Your task to perform on an android device: Play the latest video from the Wall Street Journal Image 0: 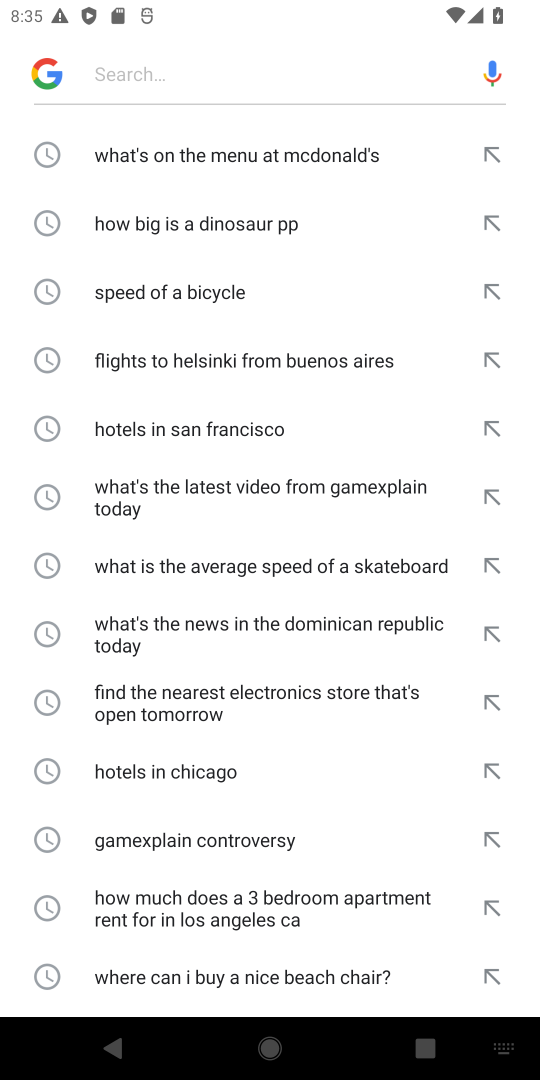
Step 0: press home button
Your task to perform on an android device: Play the latest video from the Wall Street Journal Image 1: 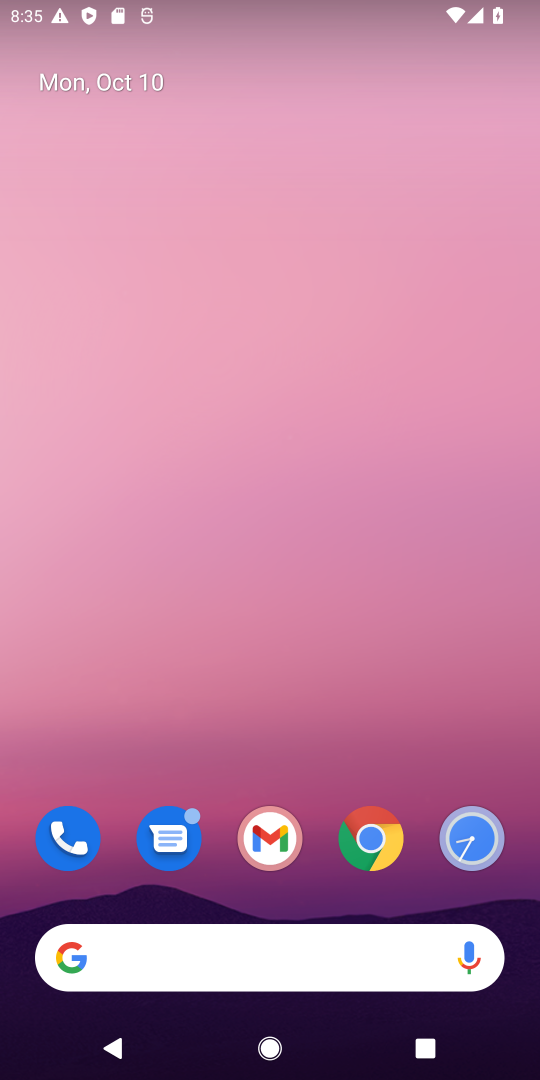
Step 1: drag from (336, 917) to (259, 26)
Your task to perform on an android device: Play the latest video from the Wall Street Journal Image 2: 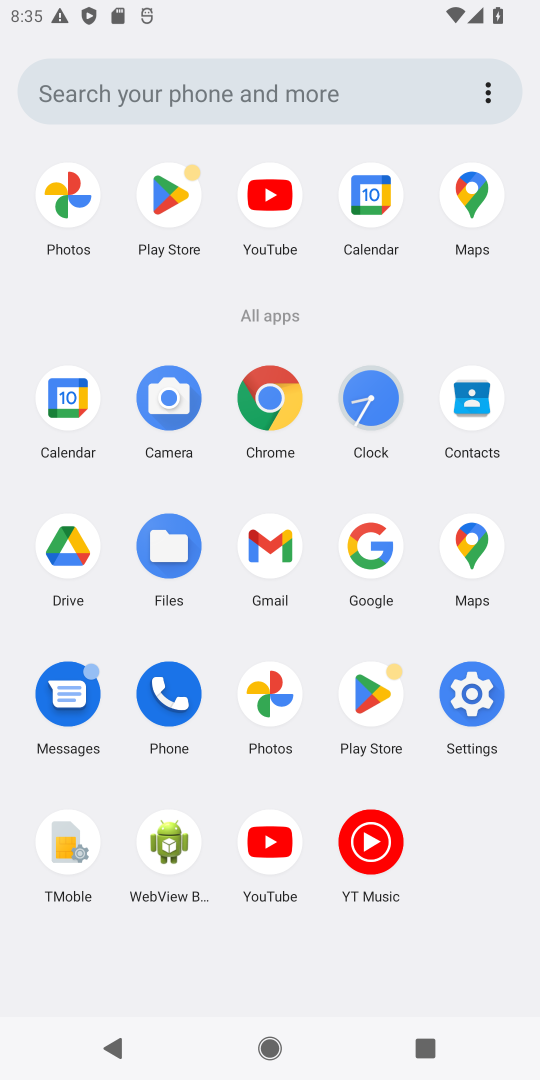
Step 2: click (368, 536)
Your task to perform on an android device: Play the latest video from the Wall Street Journal Image 3: 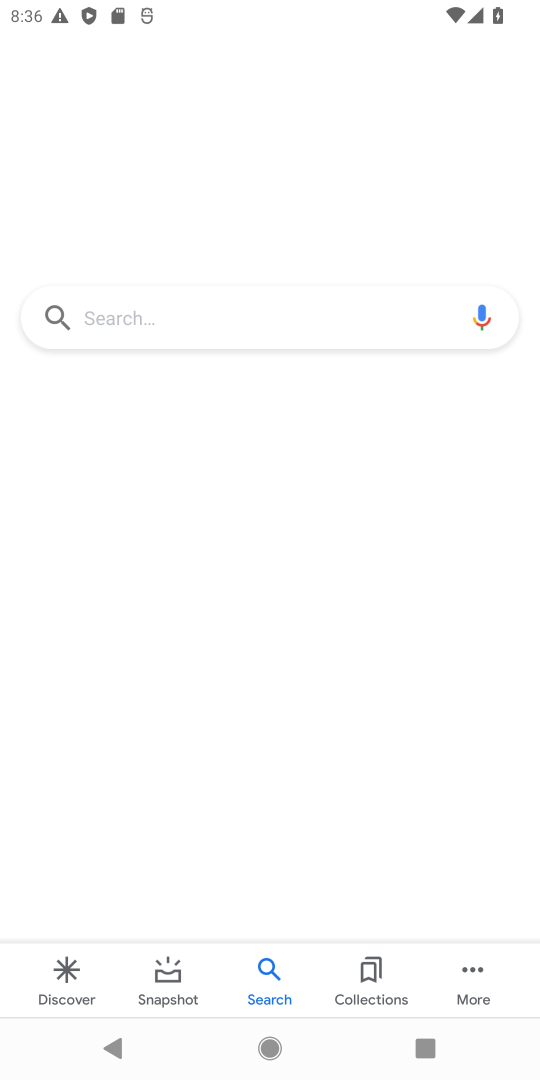
Step 3: click (263, 338)
Your task to perform on an android device: Play the latest video from the Wall Street Journal Image 4: 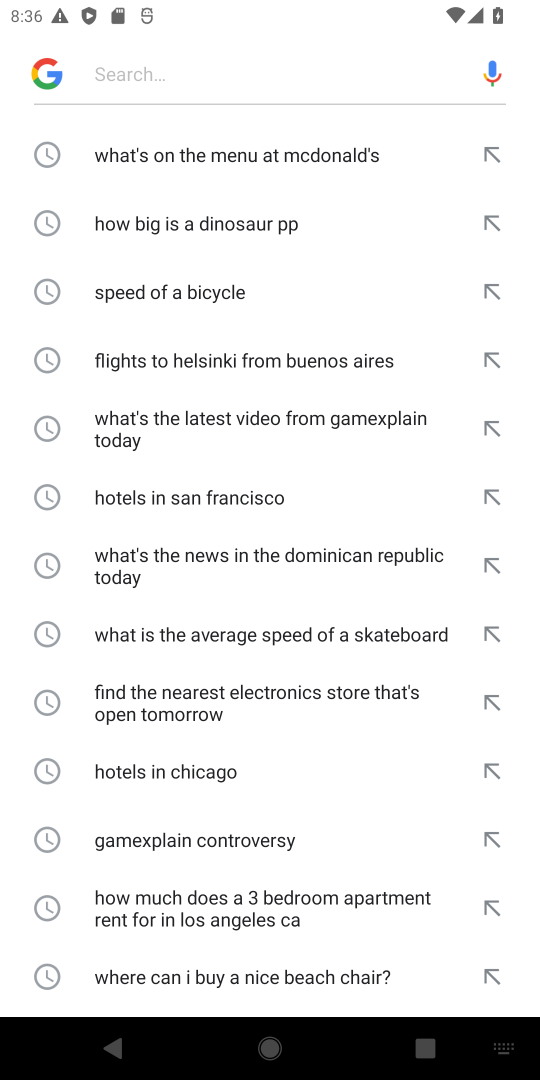
Step 4: type "Play the latest video from the Wall Street Journal"
Your task to perform on an android device: Play the latest video from the Wall Street Journal Image 5: 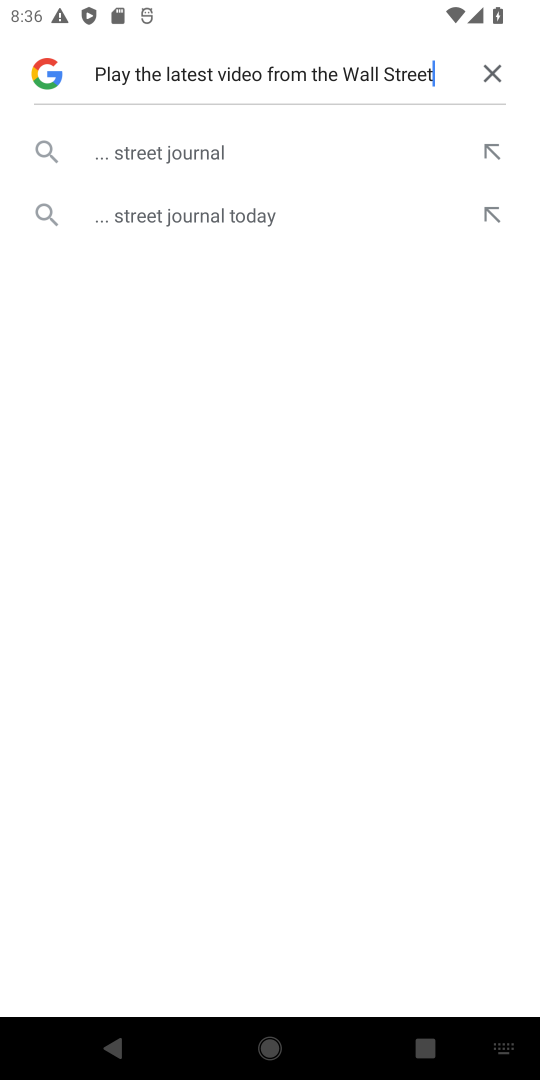
Step 5: type ""
Your task to perform on an android device: Play the latest video from the Wall Street Journal Image 6: 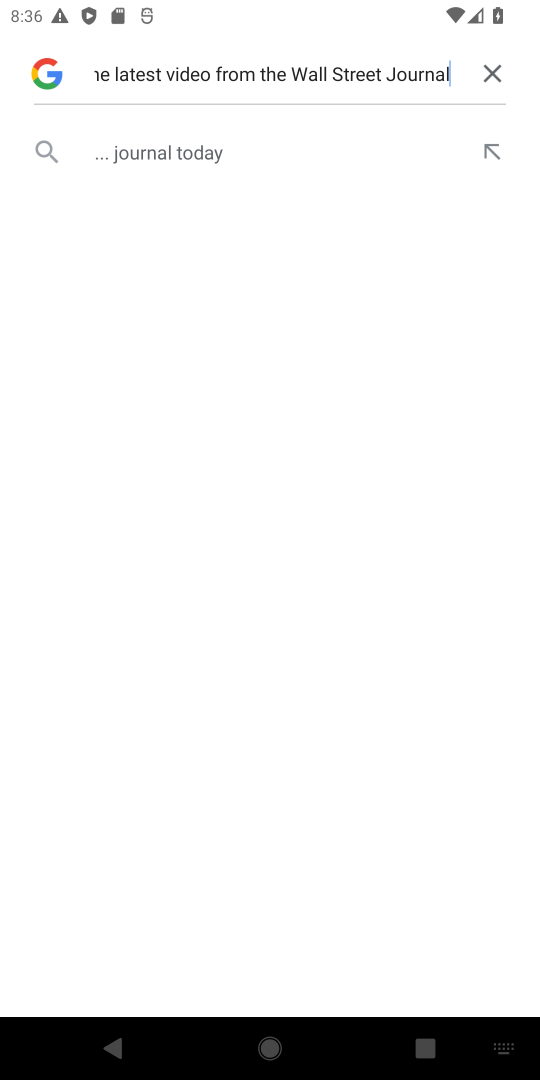
Step 6: click (170, 151)
Your task to perform on an android device: Play the latest video from the Wall Street Journal Image 7: 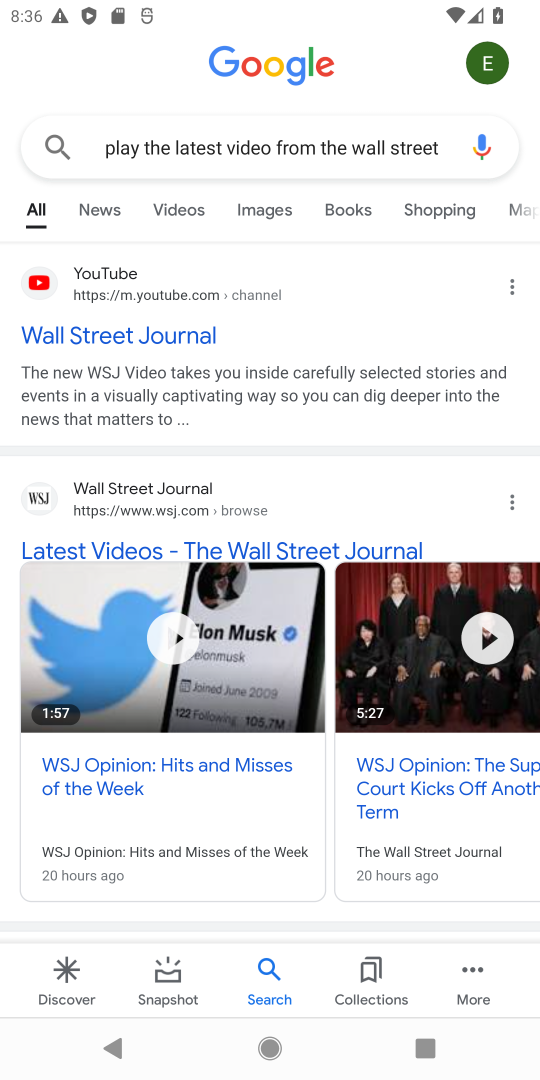
Step 7: click (175, 336)
Your task to perform on an android device: Play the latest video from the Wall Street Journal Image 8: 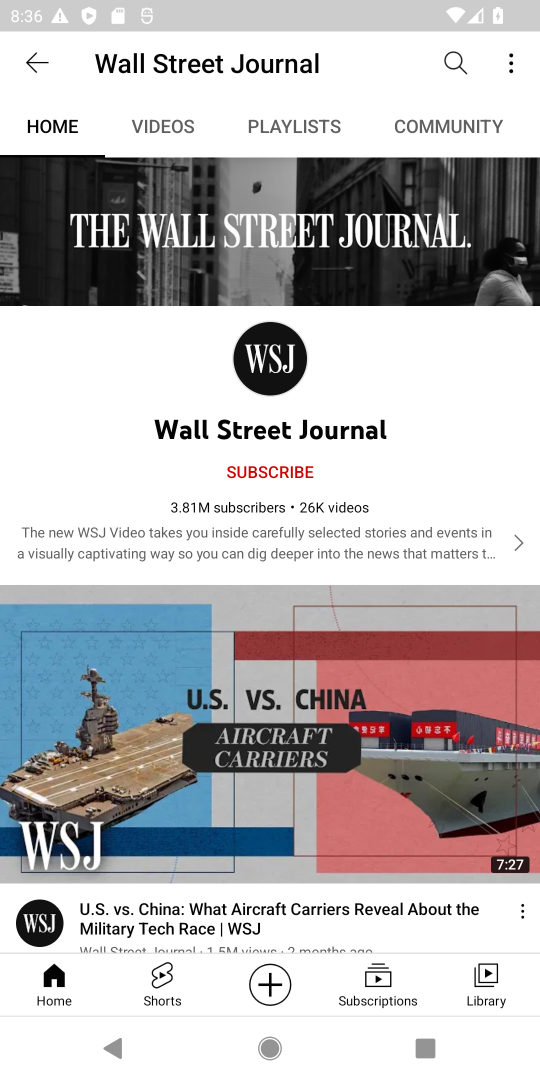
Step 8: click (165, 135)
Your task to perform on an android device: Play the latest video from the Wall Street Journal Image 9: 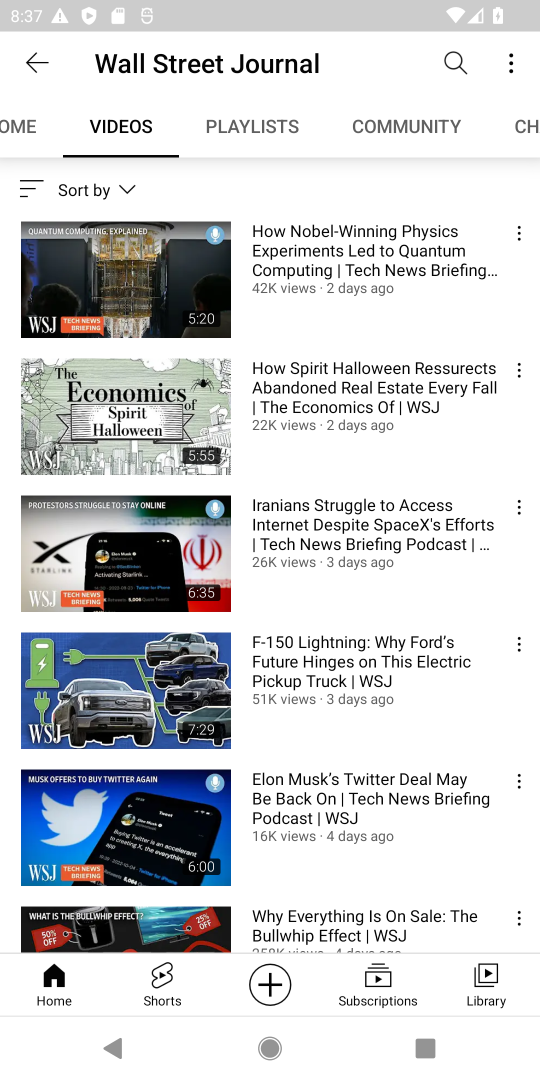
Step 9: click (295, 229)
Your task to perform on an android device: Play the latest video from the Wall Street Journal Image 10: 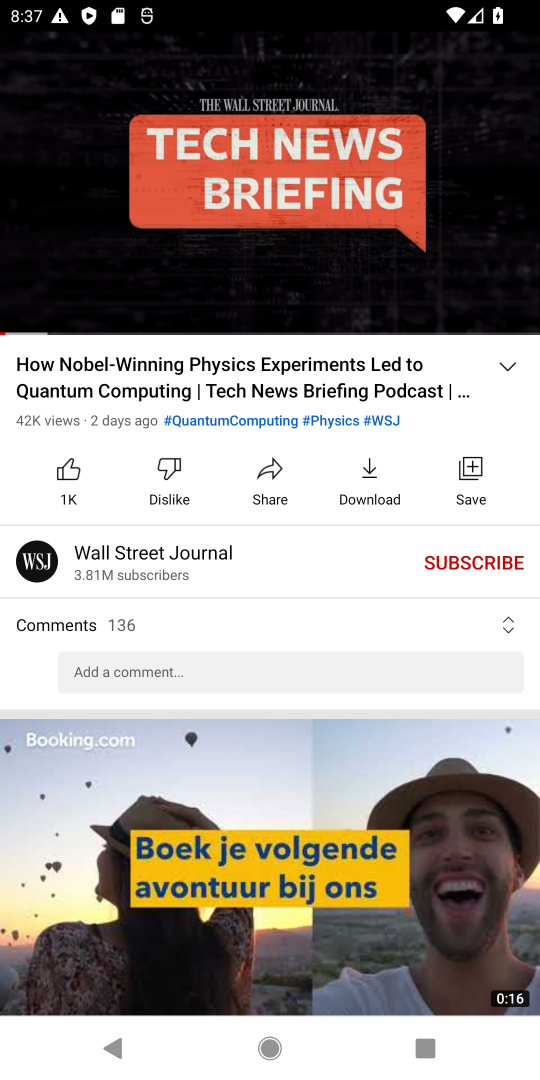
Step 10: task complete